Your task to perform on an android device: Open Android settings Image 0: 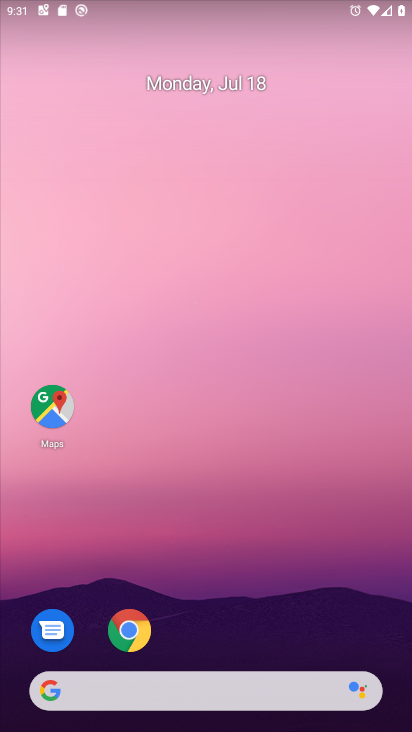
Step 0: drag from (233, 603) to (214, 81)
Your task to perform on an android device: Open Android settings Image 1: 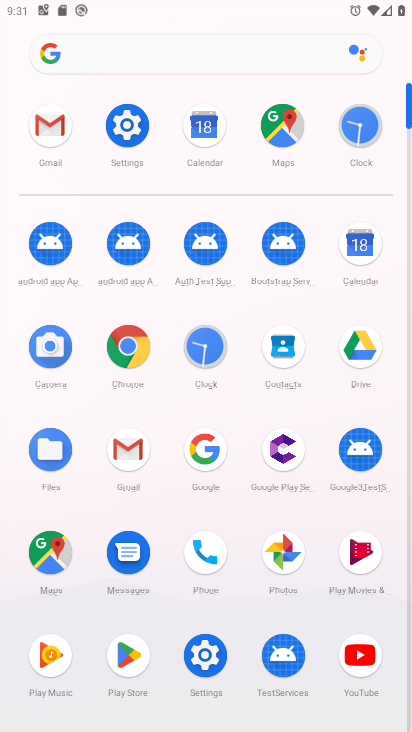
Step 1: click (112, 127)
Your task to perform on an android device: Open Android settings Image 2: 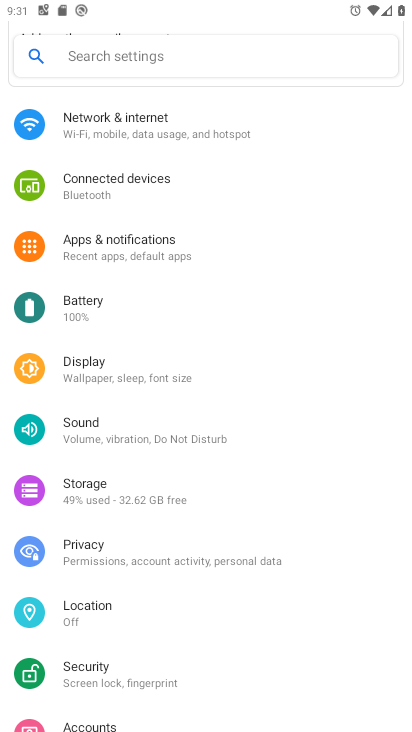
Step 2: task complete